Your task to perform on an android device: See recent photos Image 0: 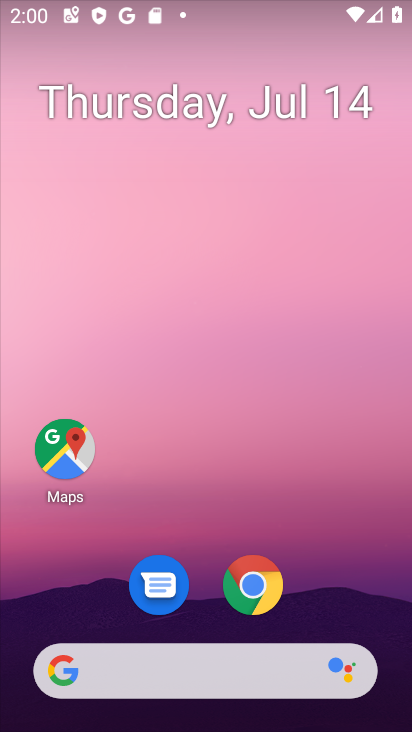
Step 0: drag from (358, 578) to (336, 43)
Your task to perform on an android device: See recent photos Image 1: 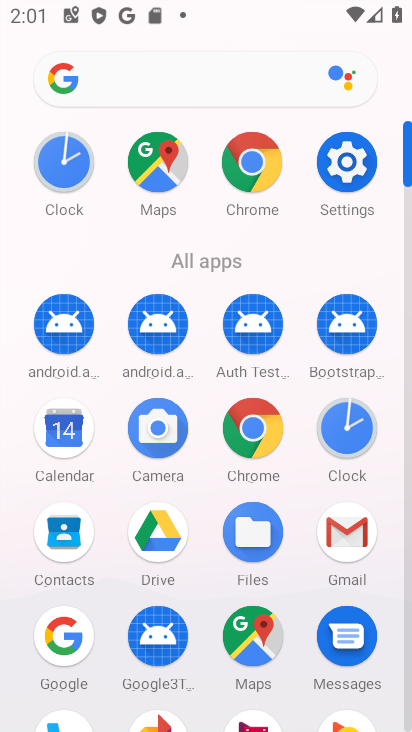
Step 1: drag from (196, 473) to (231, 176)
Your task to perform on an android device: See recent photos Image 2: 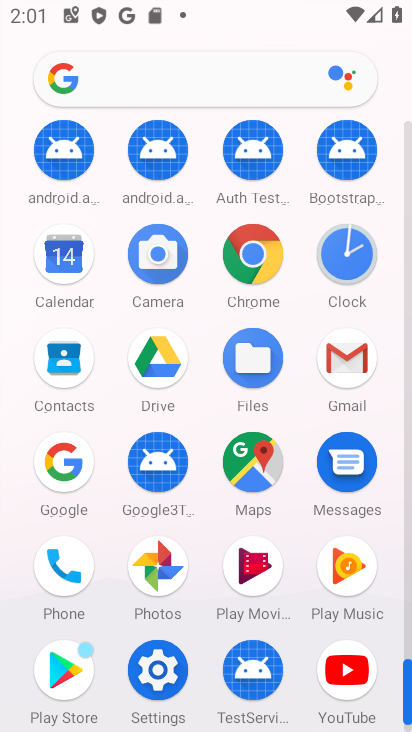
Step 2: click (153, 556)
Your task to perform on an android device: See recent photos Image 3: 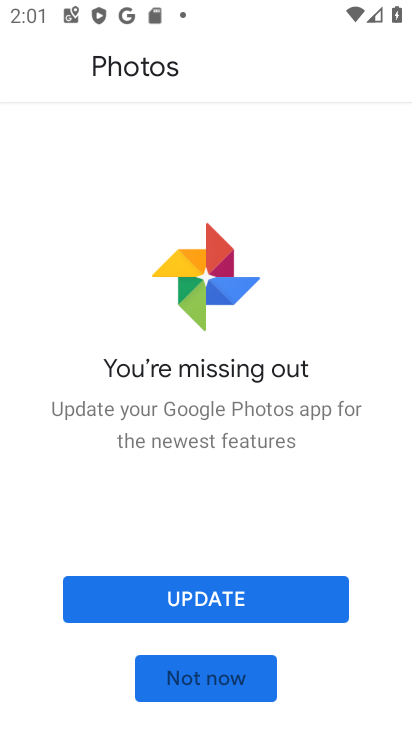
Step 3: click (258, 681)
Your task to perform on an android device: See recent photos Image 4: 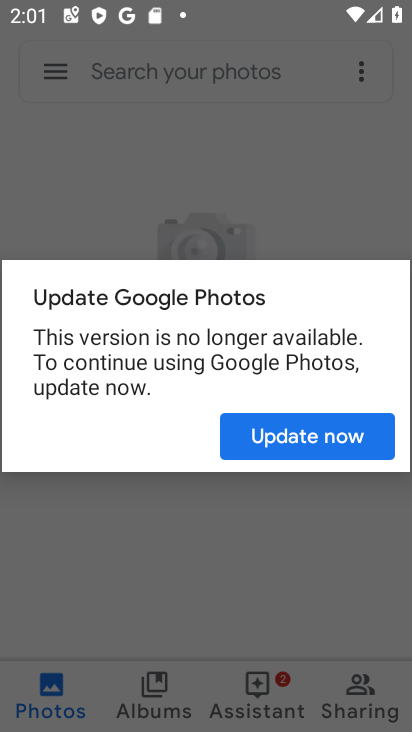
Step 4: click (329, 436)
Your task to perform on an android device: See recent photos Image 5: 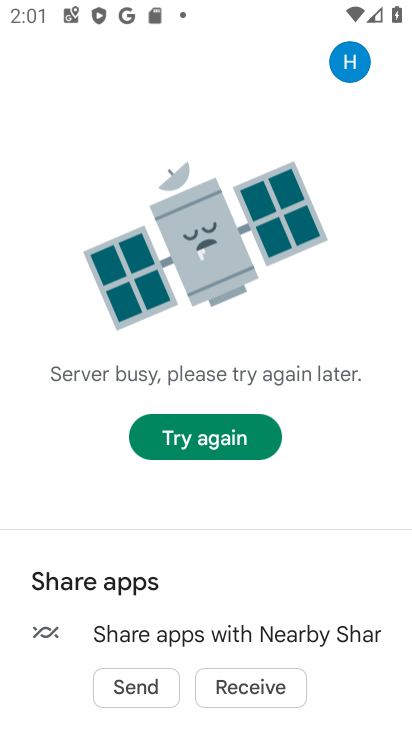
Step 5: click (245, 436)
Your task to perform on an android device: See recent photos Image 6: 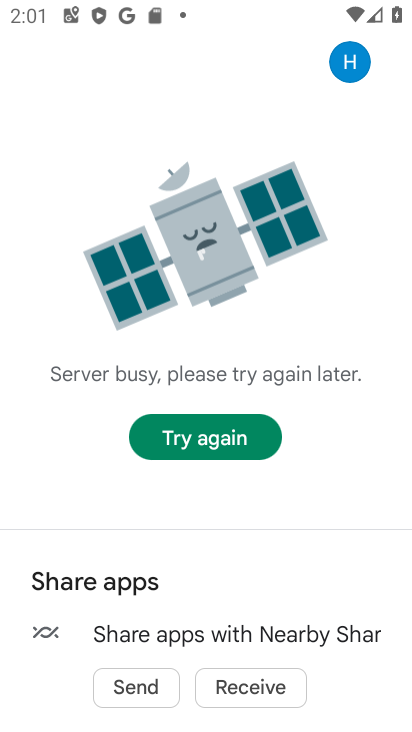
Step 6: click (245, 436)
Your task to perform on an android device: See recent photos Image 7: 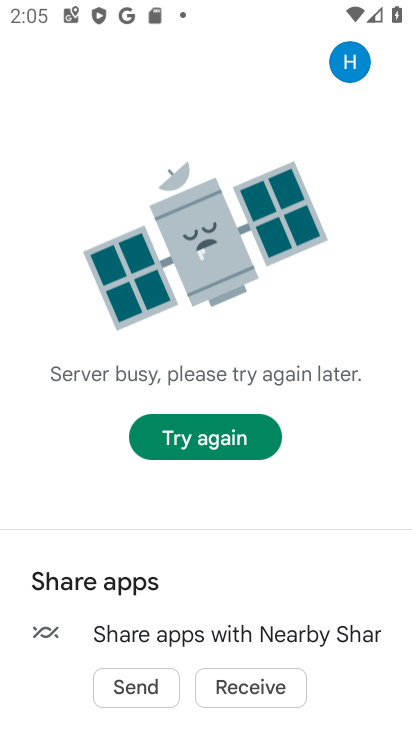
Step 7: click (263, 431)
Your task to perform on an android device: See recent photos Image 8: 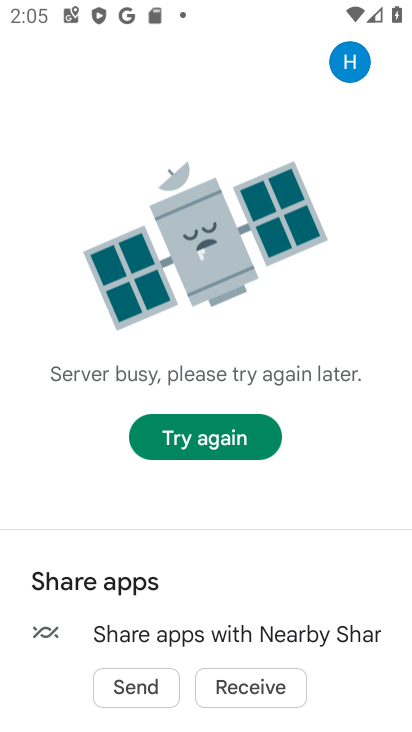
Step 8: task complete